Your task to perform on an android device: check android version Image 0: 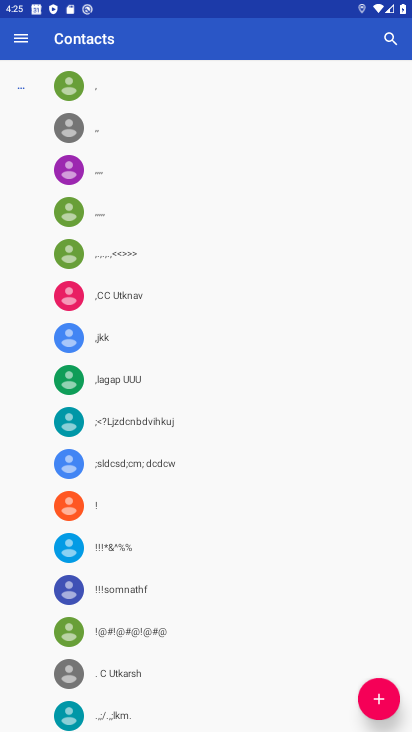
Step 0: press home button
Your task to perform on an android device: check android version Image 1: 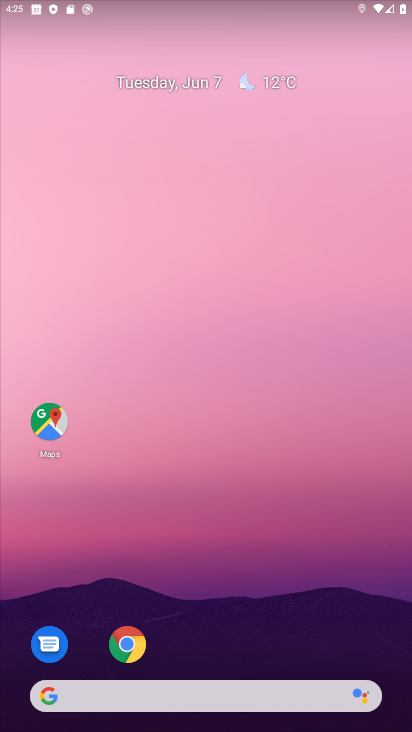
Step 1: drag from (346, 559) to (360, 121)
Your task to perform on an android device: check android version Image 2: 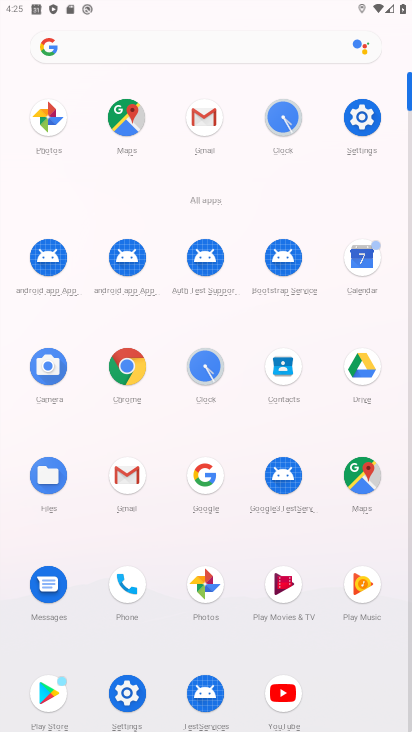
Step 2: click (358, 120)
Your task to perform on an android device: check android version Image 3: 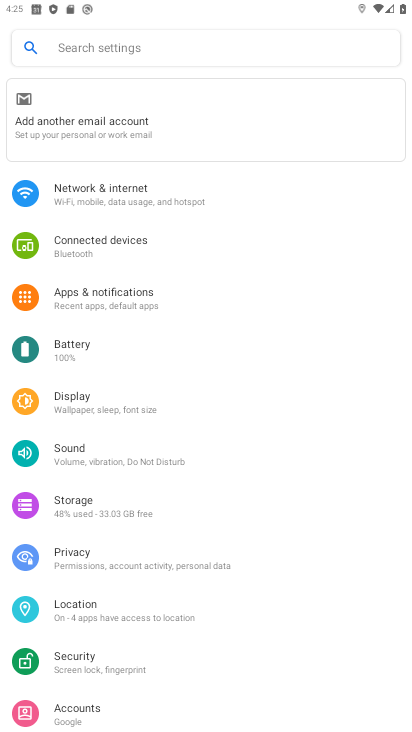
Step 3: drag from (330, 695) to (373, 218)
Your task to perform on an android device: check android version Image 4: 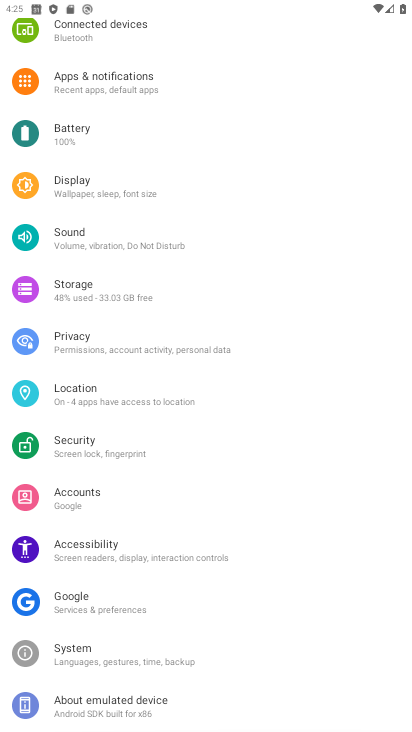
Step 4: click (137, 698)
Your task to perform on an android device: check android version Image 5: 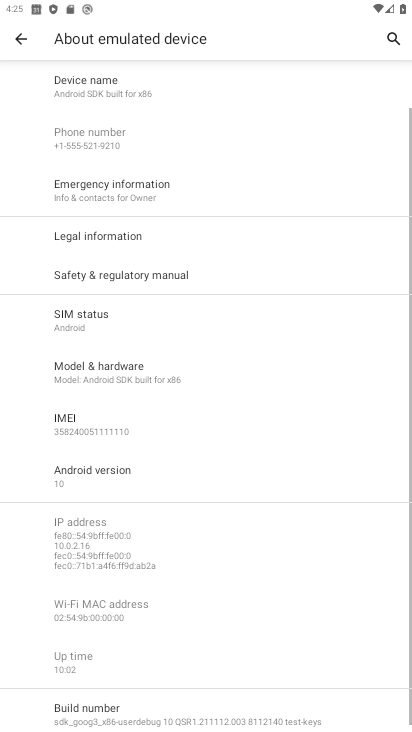
Step 5: task complete